Your task to perform on an android device: toggle data saver in the chrome app Image 0: 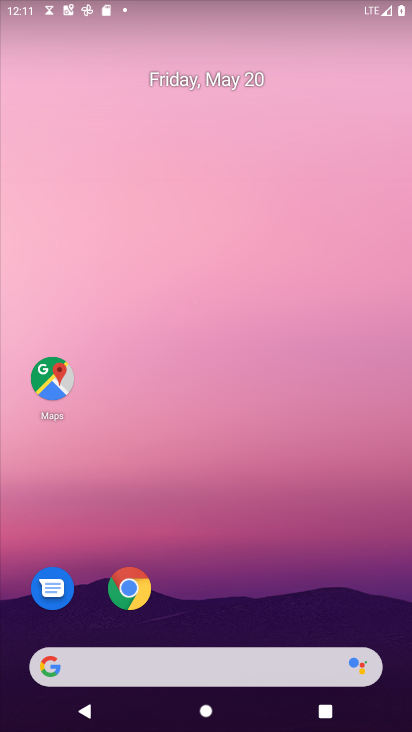
Step 0: click (130, 600)
Your task to perform on an android device: toggle data saver in the chrome app Image 1: 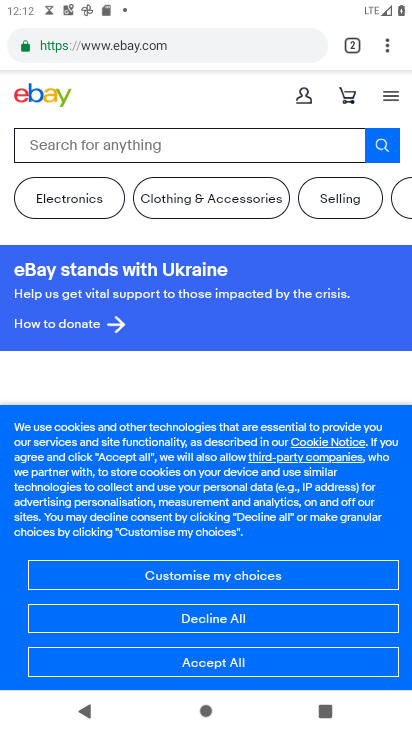
Step 1: click (390, 37)
Your task to perform on an android device: toggle data saver in the chrome app Image 2: 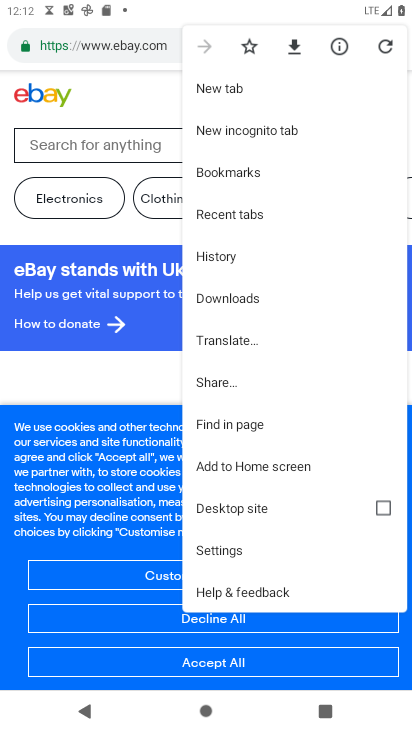
Step 2: click (256, 539)
Your task to perform on an android device: toggle data saver in the chrome app Image 3: 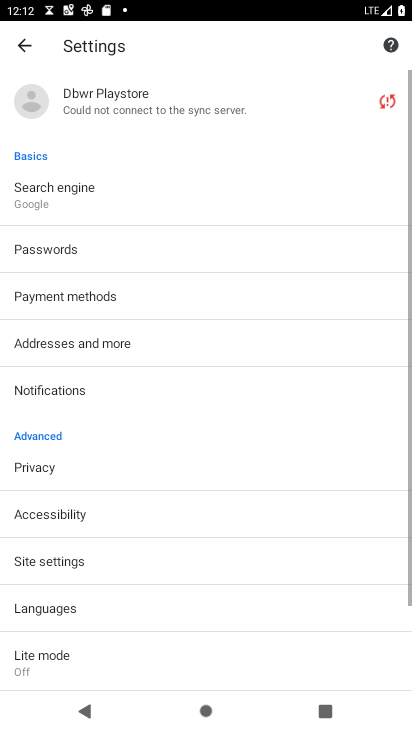
Step 3: drag from (216, 627) to (153, 143)
Your task to perform on an android device: toggle data saver in the chrome app Image 4: 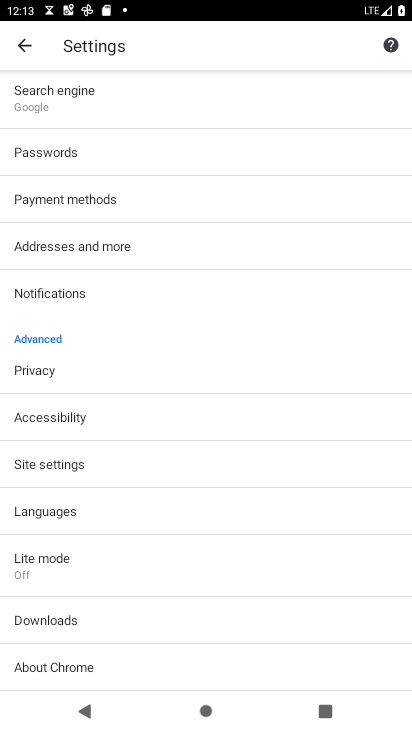
Step 4: click (78, 554)
Your task to perform on an android device: toggle data saver in the chrome app Image 5: 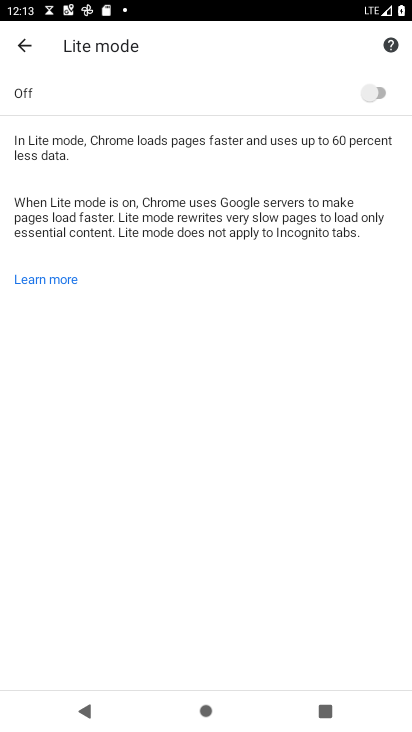
Step 5: click (373, 95)
Your task to perform on an android device: toggle data saver in the chrome app Image 6: 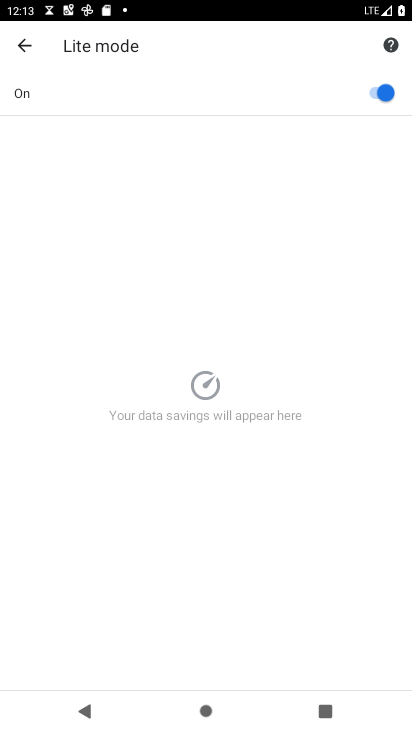
Step 6: task complete